Your task to perform on an android device: Open Chrome and go to settings Image 0: 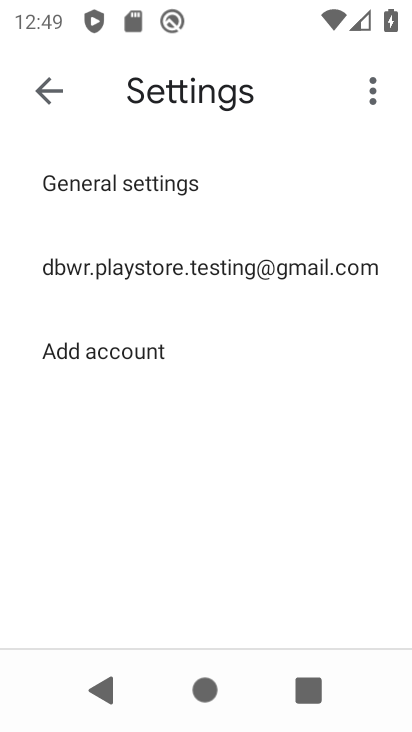
Step 0: press home button
Your task to perform on an android device: Open Chrome and go to settings Image 1: 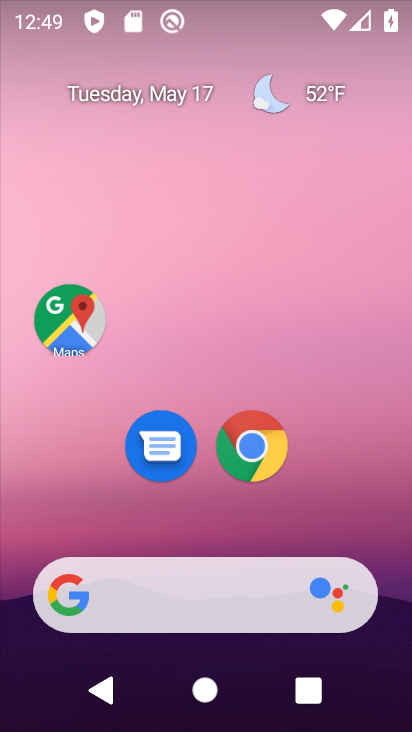
Step 1: click (274, 461)
Your task to perform on an android device: Open Chrome and go to settings Image 2: 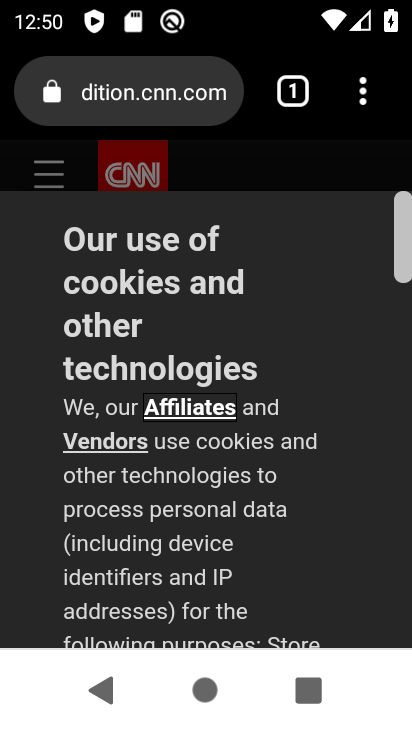
Step 2: click (378, 97)
Your task to perform on an android device: Open Chrome and go to settings Image 3: 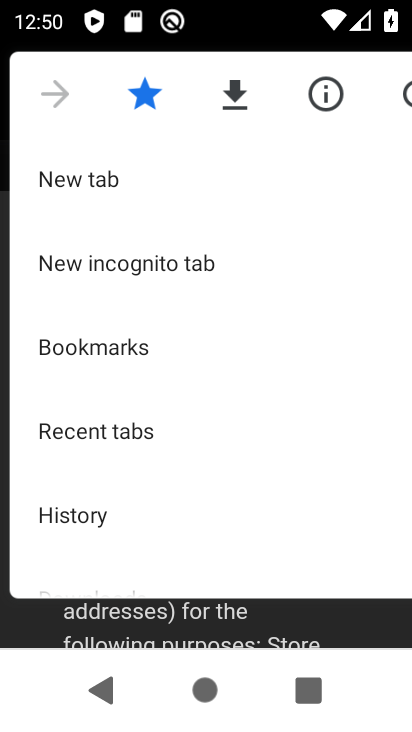
Step 3: drag from (225, 512) to (183, 244)
Your task to perform on an android device: Open Chrome and go to settings Image 4: 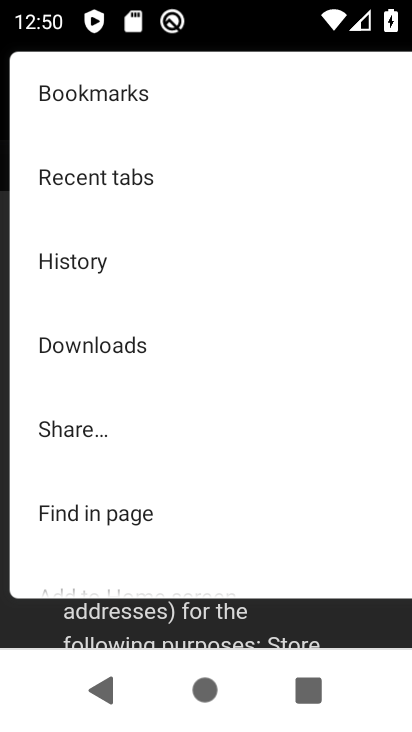
Step 4: drag from (177, 535) to (151, 288)
Your task to perform on an android device: Open Chrome and go to settings Image 5: 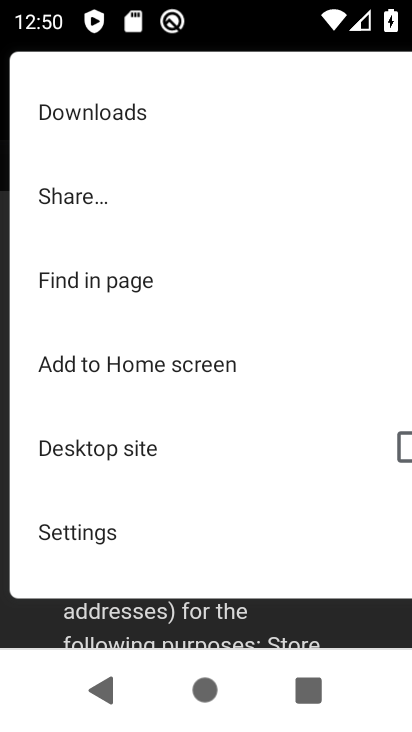
Step 5: click (112, 539)
Your task to perform on an android device: Open Chrome and go to settings Image 6: 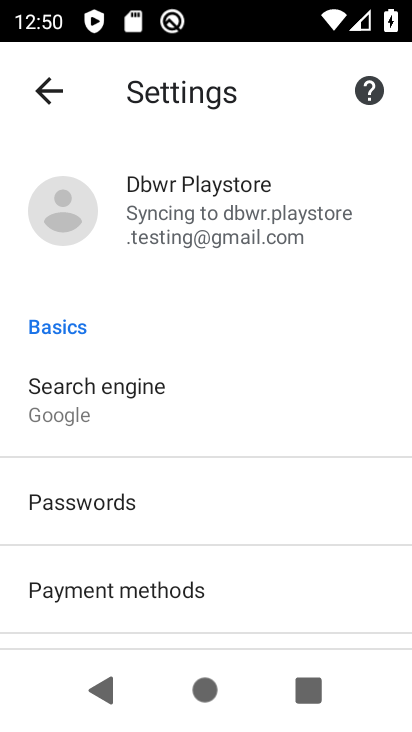
Step 6: task complete